Your task to perform on an android device: clear history in the chrome app Image 0: 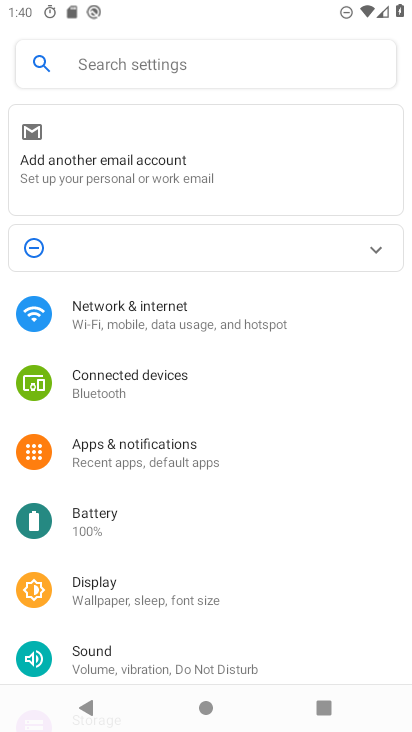
Step 0: press home button
Your task to perform on an android device: clear history in the chrome app Image 1: 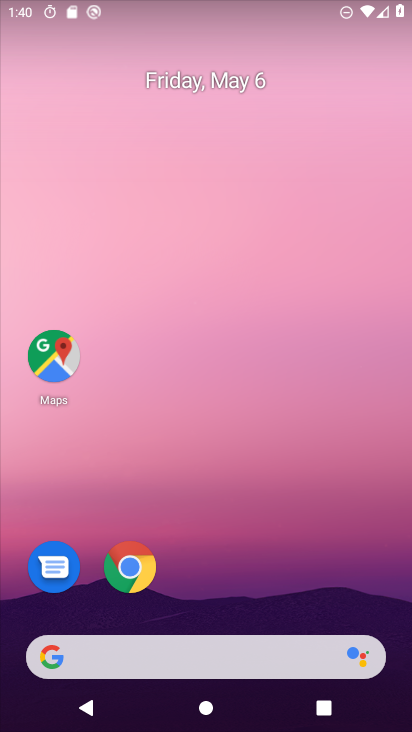
Step 1: drag from (306, 683) to (319, 62)
Your task to perform on an android device: clear history in the chrome app Image 2: 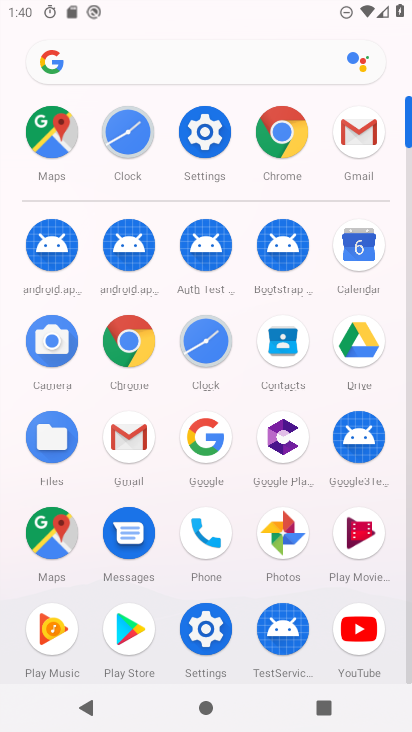
Step 2: click (273, 128)
Your task to perform on an android device: clear history in the chrome app Image 3: 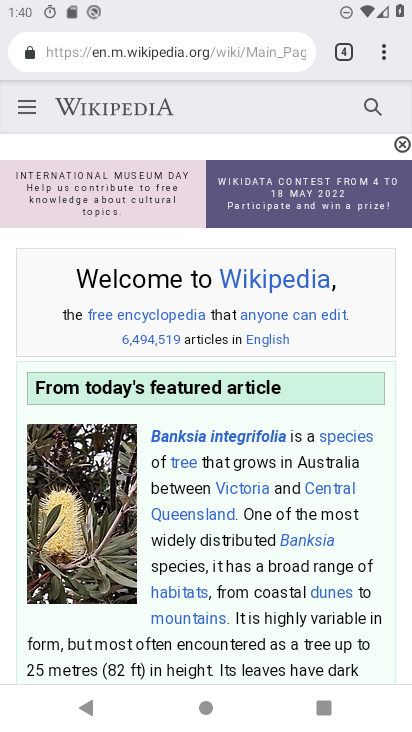
Step 3: click (386, 63)
Your task to perform on an android device: clear history in the chrome app Image 4: 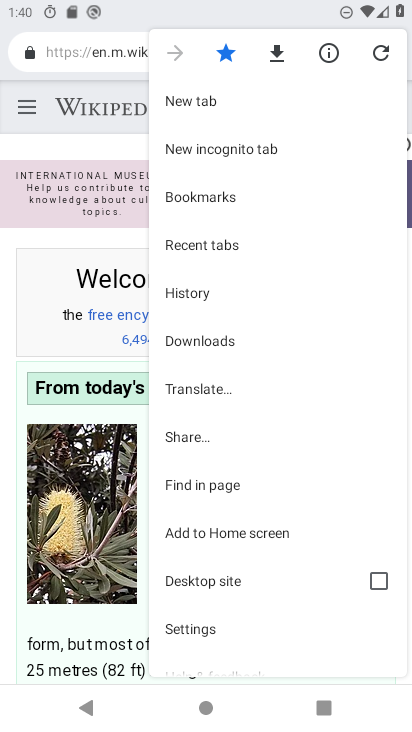
Step 4: click (216, 291)
Your task to perform on an android device: clear history in the chrome app Image 5: 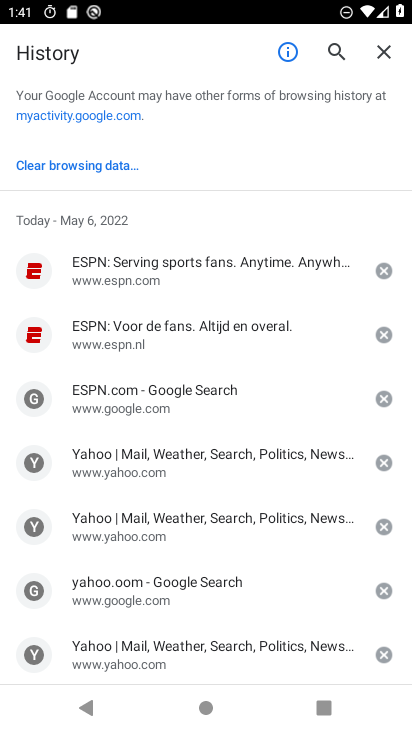
Step 5: click (103, 169)
Your task to perform on an android device: clear history in the chrome app Image 6: 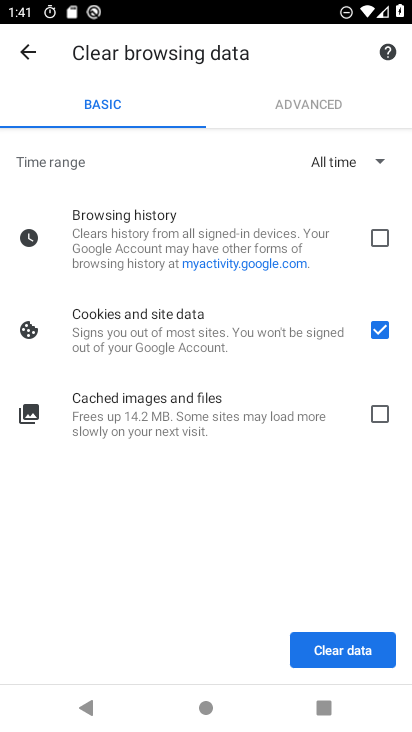
Step 6: click (374, 241)
Your task to perform on an android device: clear history in the chrome app Image 7: 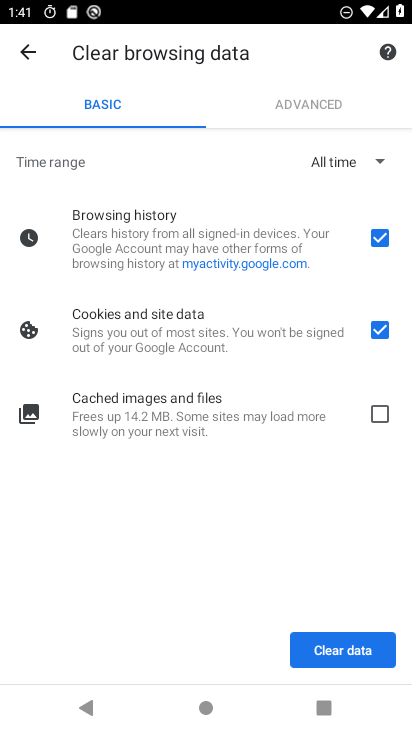
Step 7: click (341, 655)
Your task to perform on an android device: clear history in the chrome app Image 8: 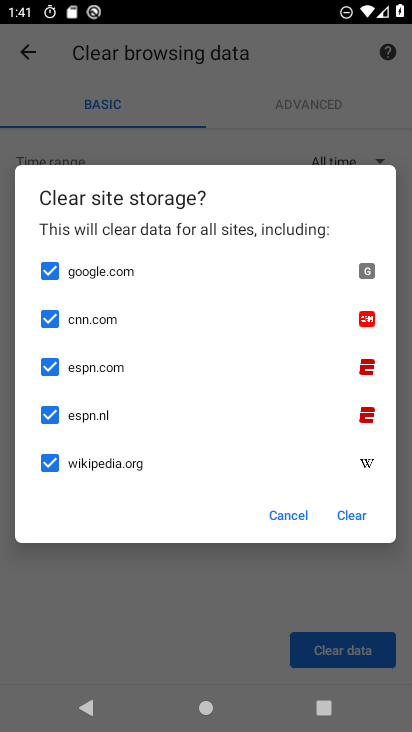
Step 8: task complete